Your task to perform on an android device: toggle wifi Image 0: 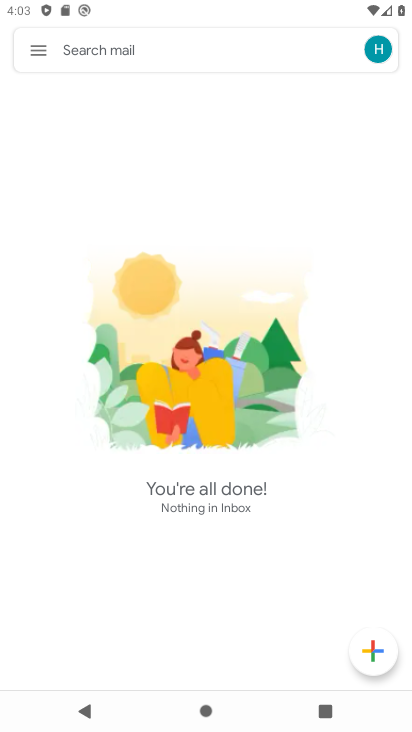
Step 0: press back button
Your task to perform on an android device: toggle wifi Image 1: 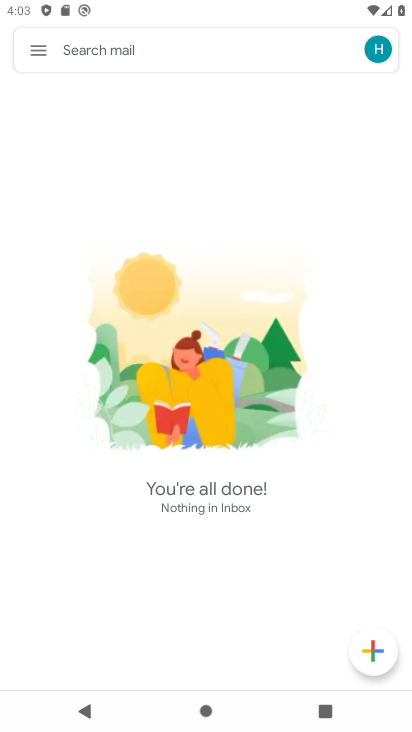
Step 1: press back button
Your task to perform on an android device: toggle wifi Image 2: 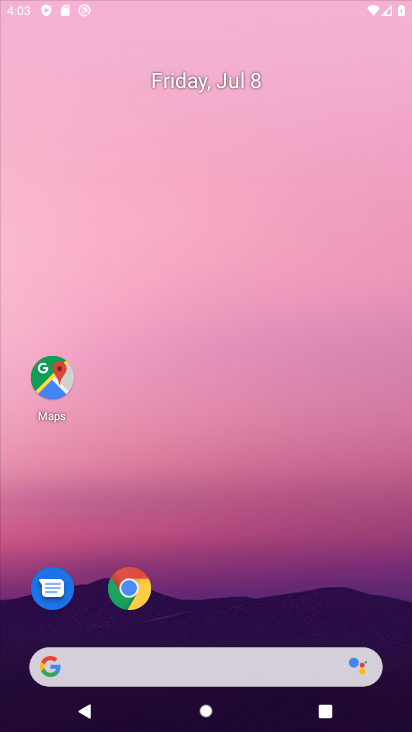
Step 2: press back button
Your task to perform on an android device: toggle wifi Image 3: 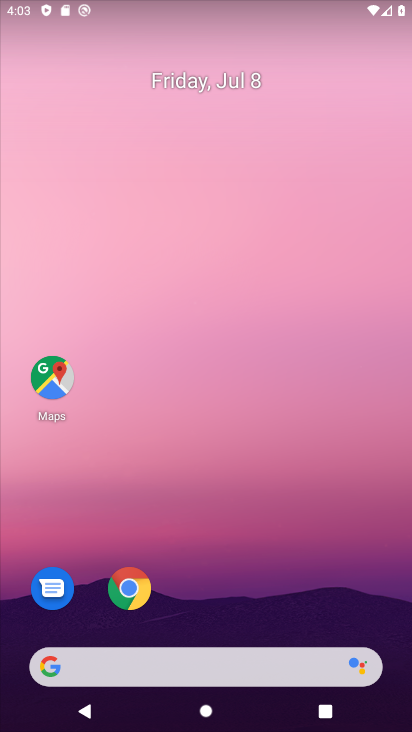
Step 3: drag from (319, 594) to (180, 12)
Your task to perform on an android device: toggle wifi Image 4: 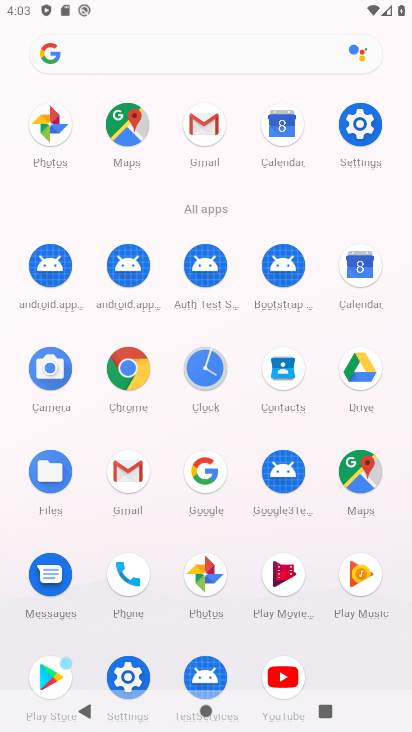
Step 4: click (361, 159)
Your task to perform on an android device: toggle wifi Image 5: 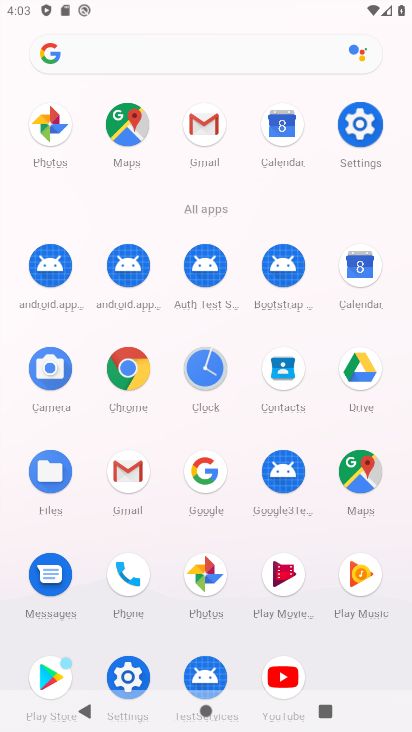
Step 5: click (362, 135)
Your task to perform on an android device: toggle wifi Image 6: 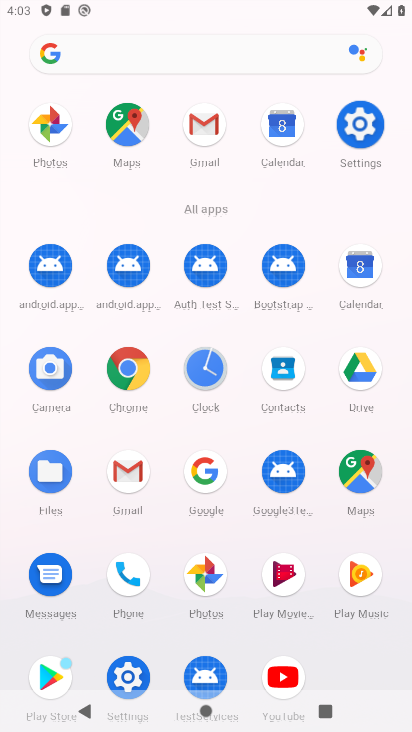
Step 6: click (362, 134)
Your task to perform on an android device: toggle wifi Image 7: 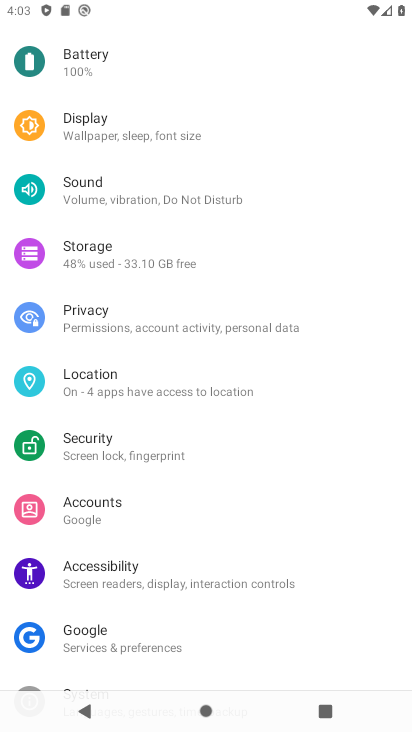
Step 7: click (363, 133)
Your task to perform on an android device: toggle wifi Image 8: 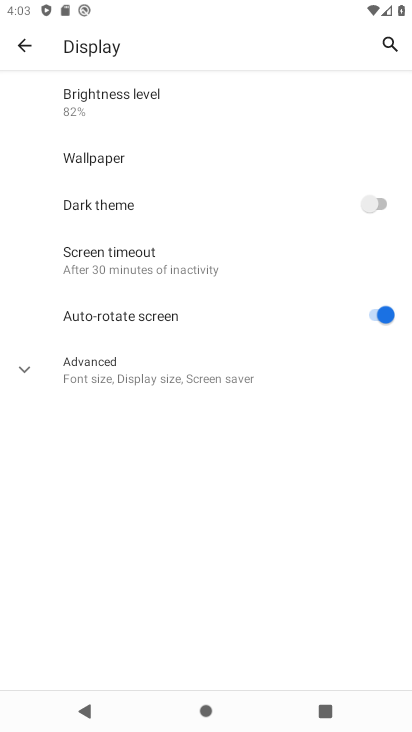
Step 8: drag from (148, 329) to (149, 497)
Your task to perform on an android device: toggle wifi Image 9: 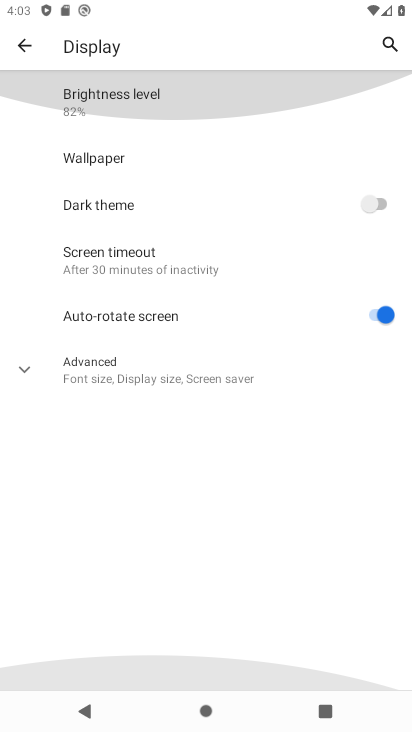
Step 9: click (176, 436)
Your task to perform on an android device: toggle wifi Image 10: 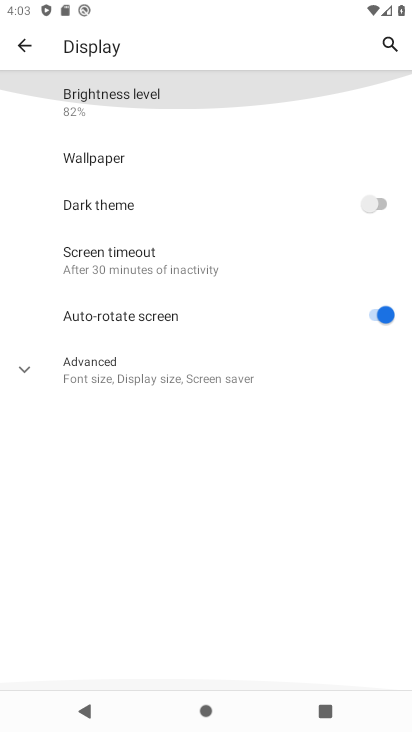
Step 10: drag from (133, 156) to (133, 450)
Your task to perform on an android device: toggle wifi Image 11: 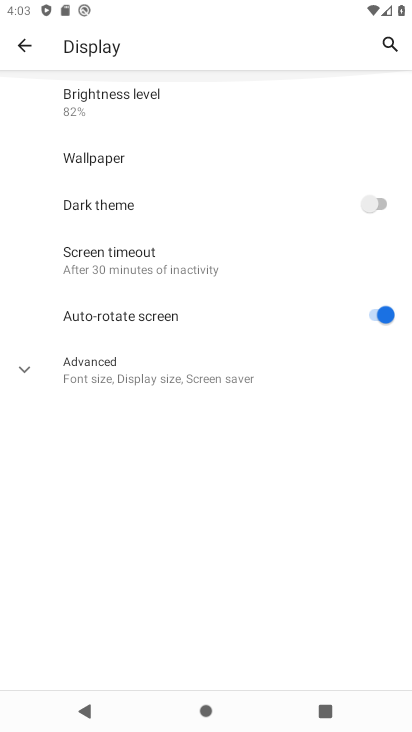
Step 11: click (22, 46)
Your task to perform on an android device: toggle wifi Image 12: 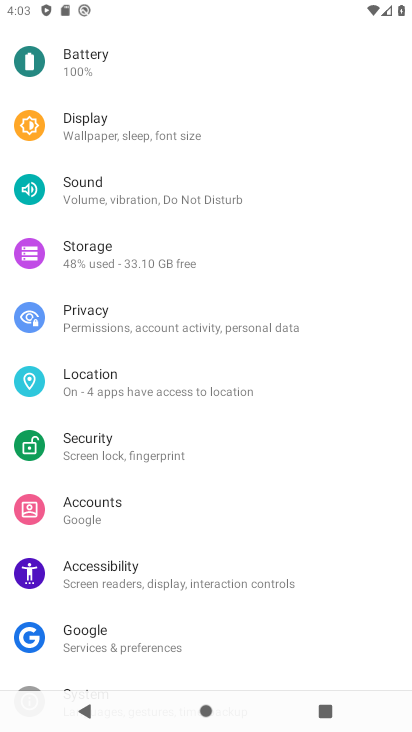
Step 12: drag from (129, 252) to (172, 503)
Your task to perform on an android device: toggle wifi Image 13: 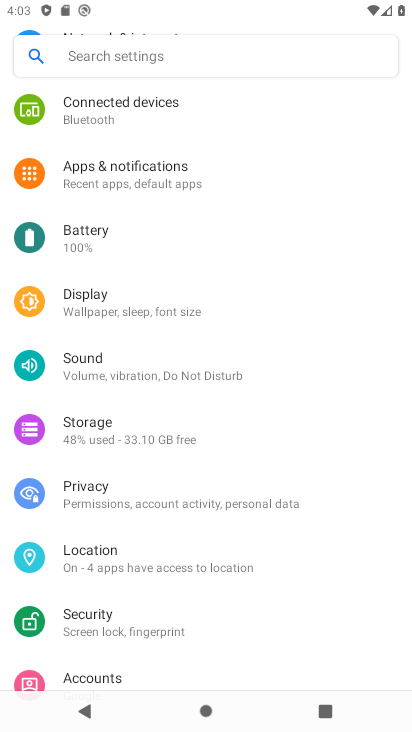
Step 13: click (196, 548)
Your task to perform on an android device: toggle wifi Image 14: 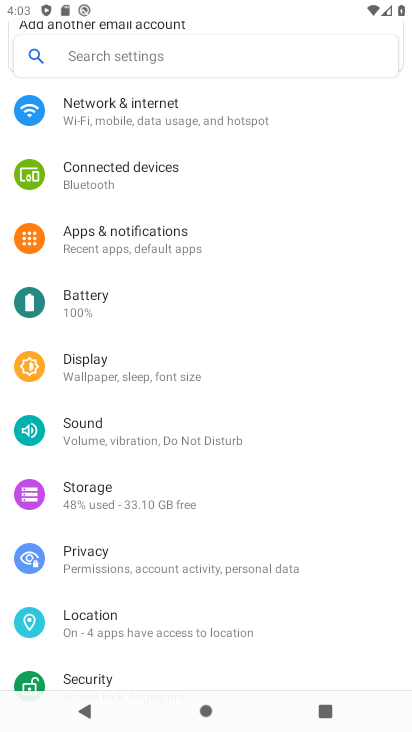
Step 14: drag from (115, 161) to (274, 701)
Your task to perform on an android device: toggle wifi Image 15: 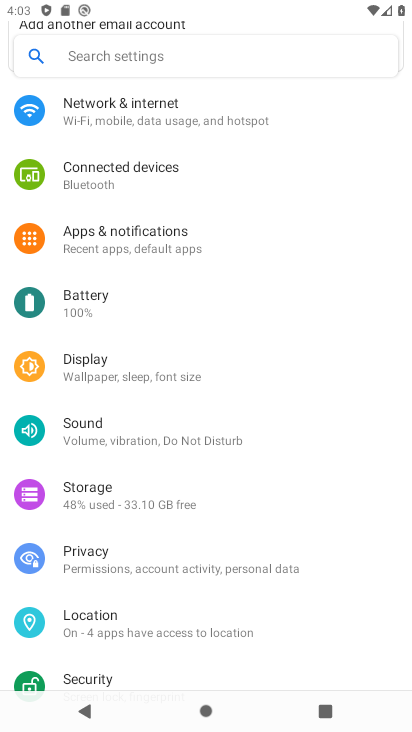
Step 15: drag from (106, 514) to (237, 693)
Your task to perform on an android device: toggle wifi Image 16: 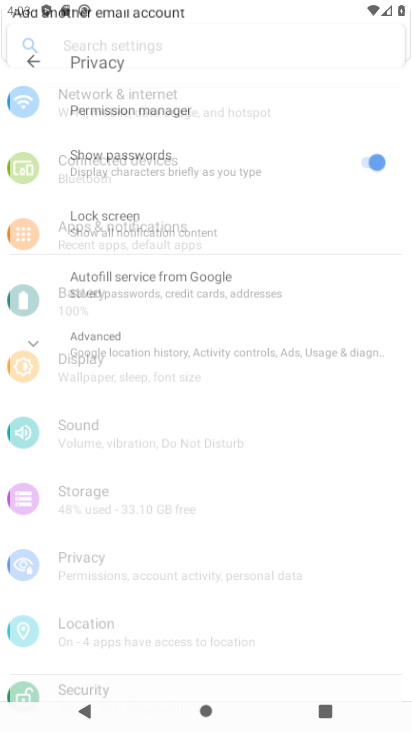
Step 16: drag from (127, 115) to (164, 543)
Your task to perform on an android device: toggle wifi Image 17: 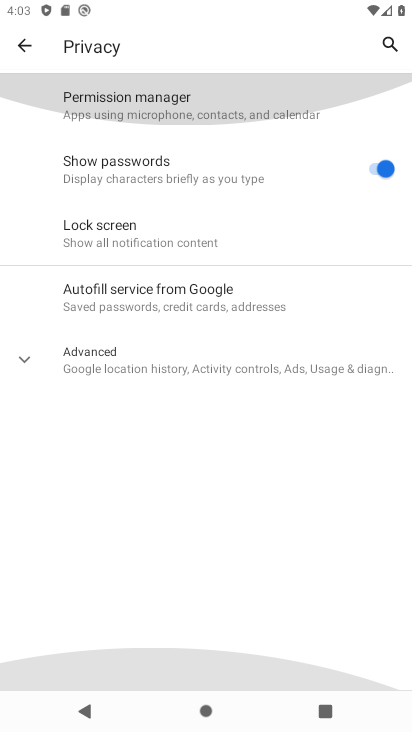
Step 17: drag from (108, 276) to (115, 466)
Your task to perform on an android device: toggle wifi Image 18: 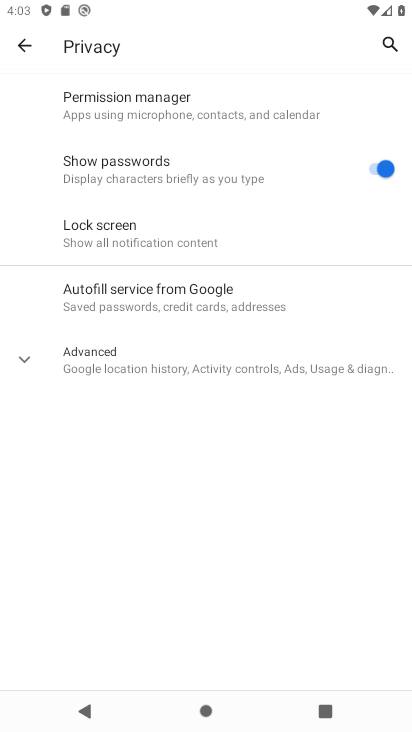
Step 18: click (23, 56)
Your task to perform on an android device: toggle wifi Image 19: 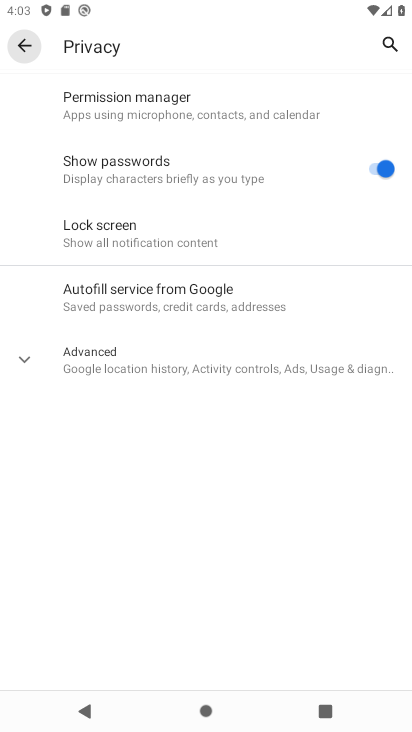
Step 19: click (22, 51)
Your task to perform on an android device: toggle wifi Image 20: 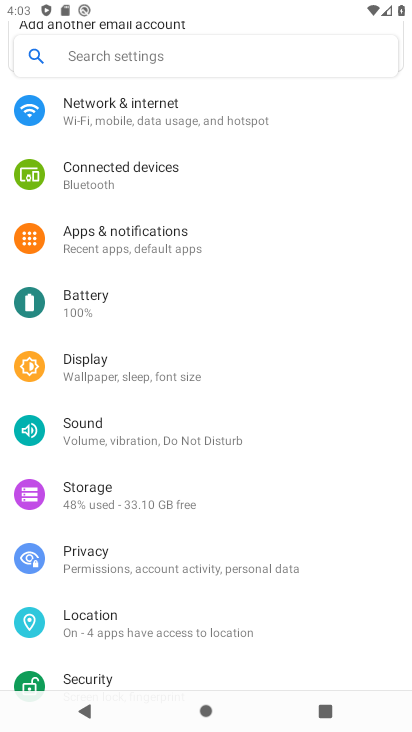
Step 20: drag from (82, 262) to (77, 517)
Your task to perform on an android device: toggle wifi Image 21: 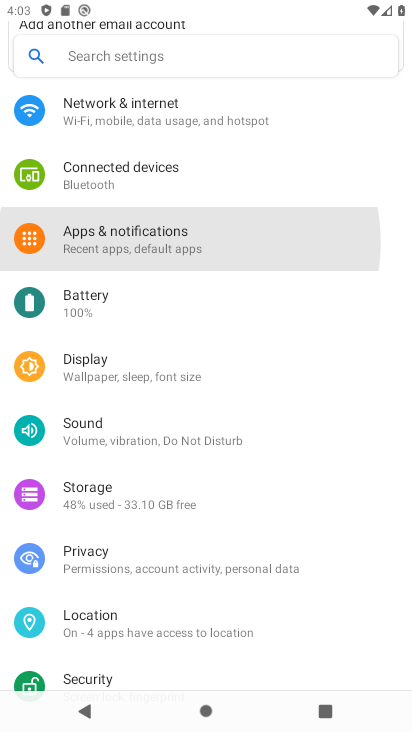
Step 21: drag from (113, 180) to (184, 476)
Your task to perform on an android device: toggle wifi Image 22: 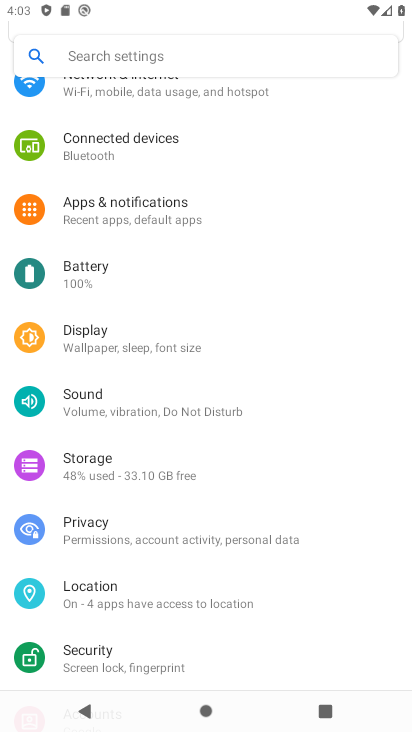
Step 22: drag from (119, 141) to (119, 439)
Your task to perform on an android device: toggle wifi Image 23: 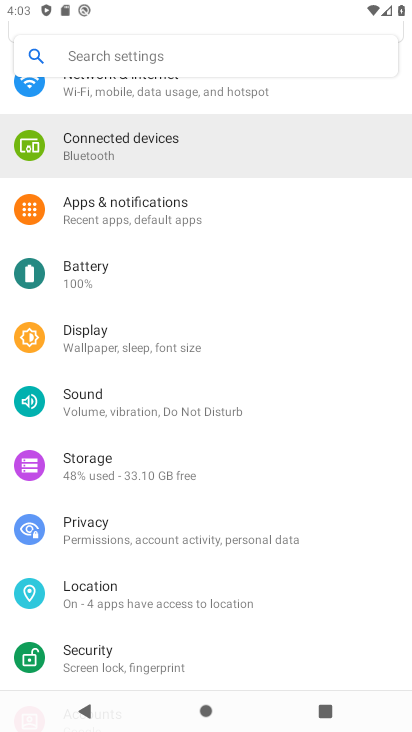
Step 23: click (209, 509)
Your task to perform on an android device: toggle wifi Image 24: 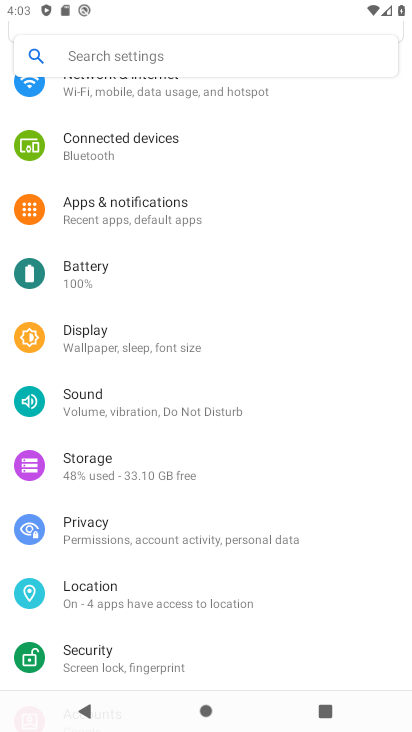
Step 24: drag from (125, 513) to (66, 540)
Your task to perform on an android device: toggle wifi Image 25: 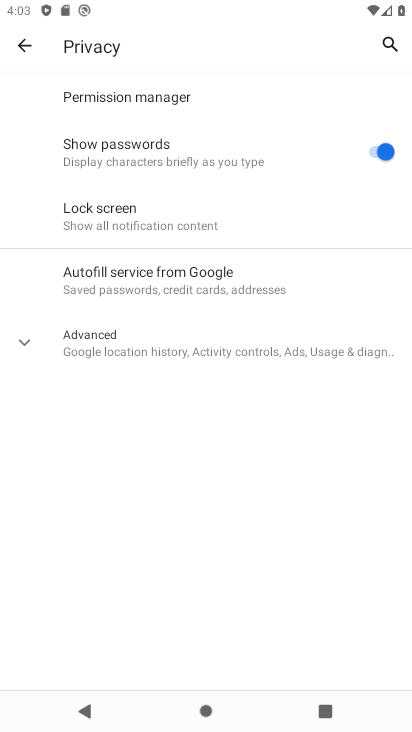
Step 25: drag from (150, 444) to (157, 532)
Your task to perform on an android device: toggle wifi Image 26: 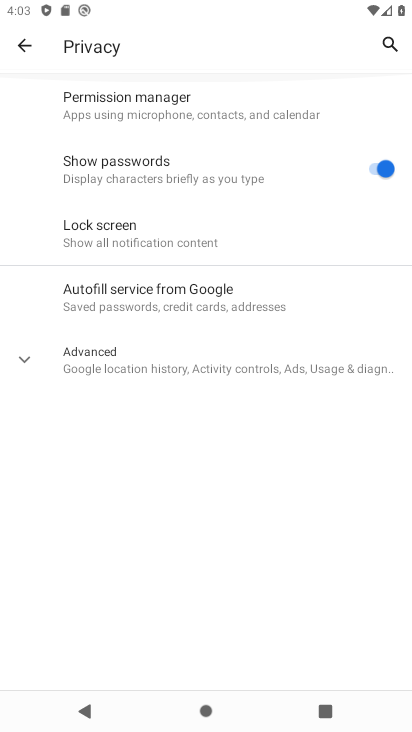
Step 26: drag from (100, 469) to (117, 539)
Your task to perform on an android device: toggle wifi Image 27: 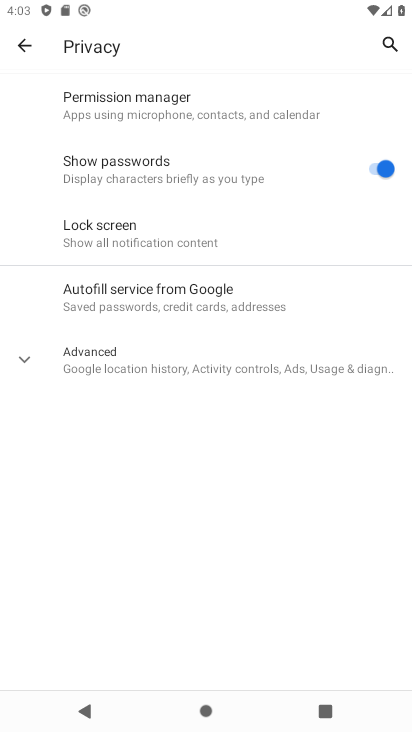
Step 27: click (29, 52)
Your task to perform on an android device: toggle wifi Image 28: 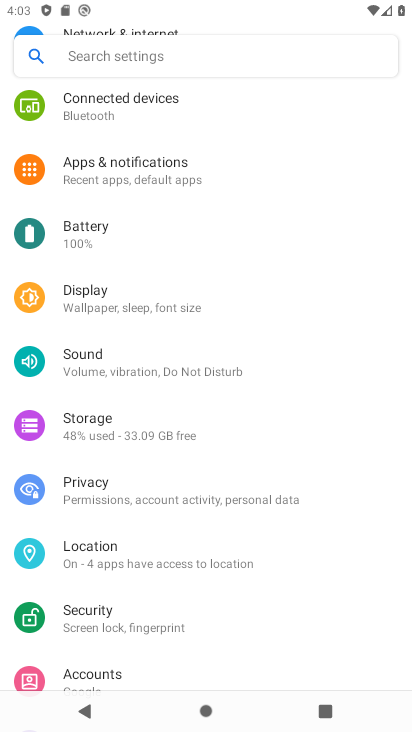
Step 28: drag from (119, 197) to (147, 398)
Your task to perform on an android device: toggle wifi Image 29: 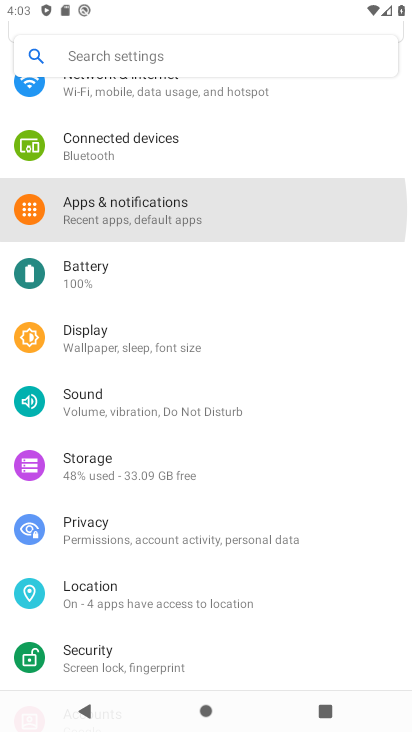
Step 29: drag from (118, 150) to (172, 691)
Your task to perform on an android device: toggle wifi Image 30: 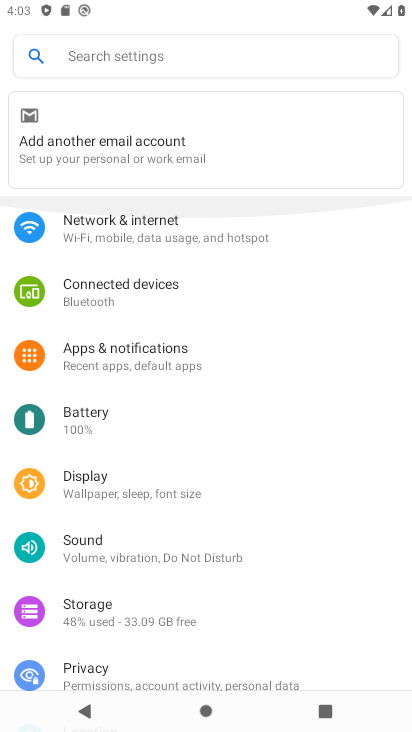
Step 30: drag from (111, 265) to (306, 679)
Your task to perform on an android device: toggle wifi Image 31: 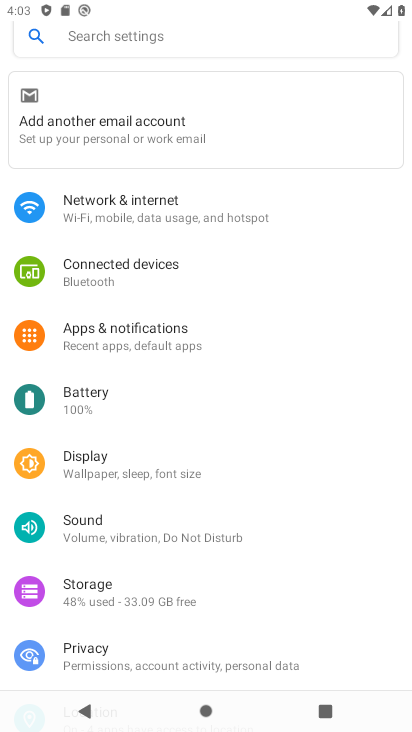
Step 31: drag from (280, 613) to (74, 586)
Your task to perform on an android device: toggle wifi Image 32: 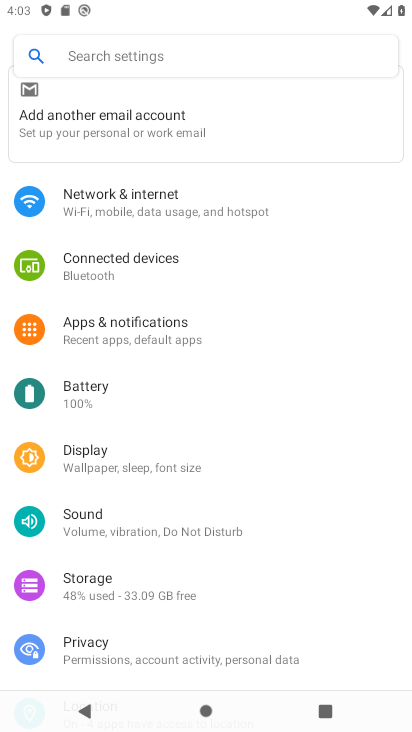
Step 32: drag from (146, 288) to (162, 396)
Your task to perform on an android device: toggle wifi Image 33: 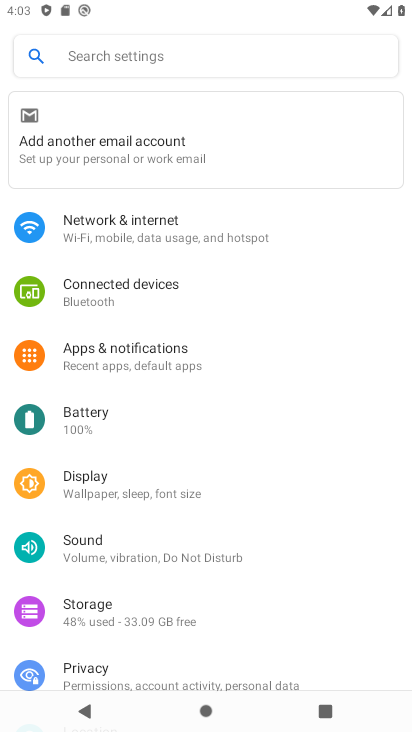
Step 33: click (150, 191)
Your task to perform on an android device: toggle wifi Image 34: 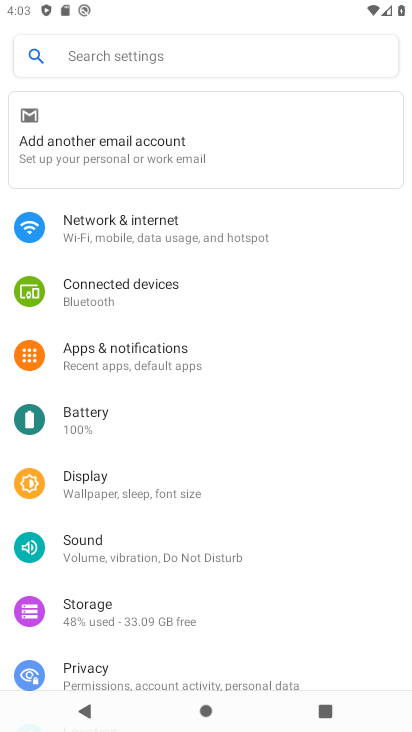
Step 34: click (117, 220)
Your task to perform on an android device: toggle wifi Image 35: 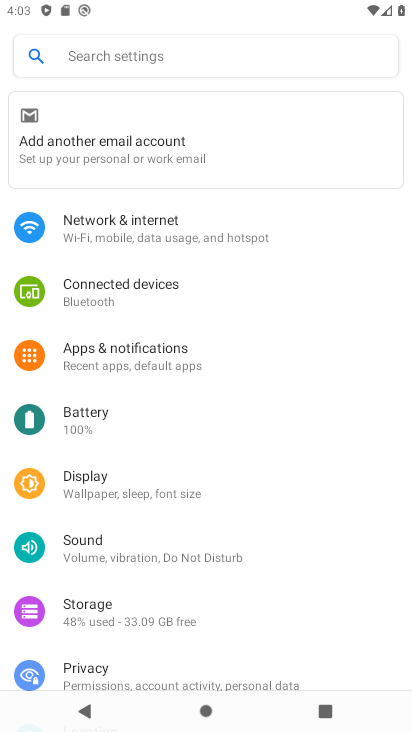
Step 35: click (117, 220)
Your task to perform on an android device: toggle wifi Image 36: 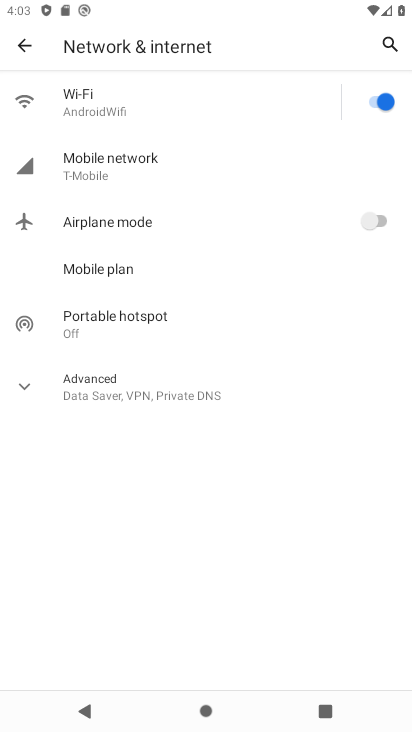
Step 36: task complete